Your task to perform on an android device: turn off smart reply in the gmail app Image 0: 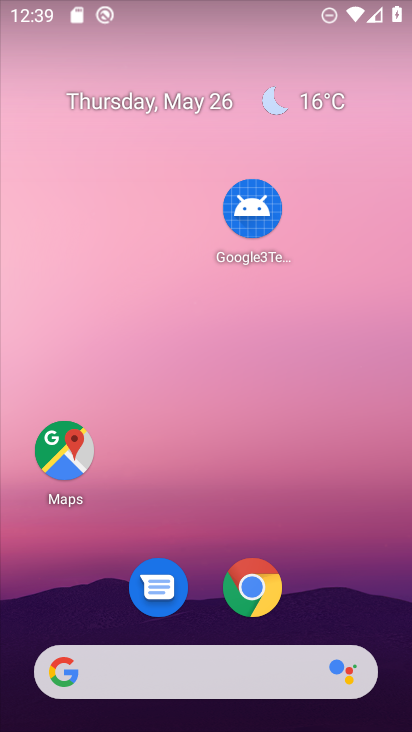
Step 0: drag from (245, 660) to (217, 205)
Your task to perform on an android device: turn off smart reply in the gmail app Image 1: 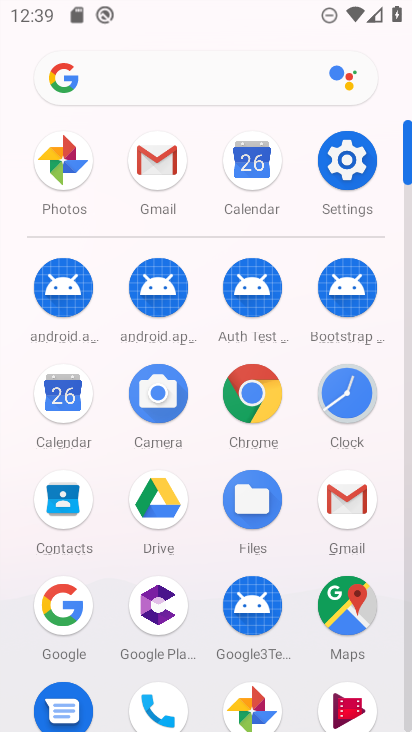
Step 1: click (354, 488)
Your task to perform on an android device: turn off smart reply in the gmail app Image 2: 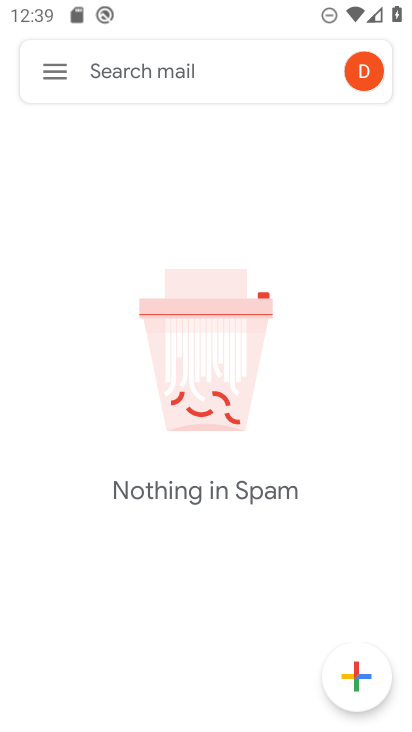
Step 2: click (55, 81)
Your task to perform on an android device: turn off smart reply in the gmail app Image 3: 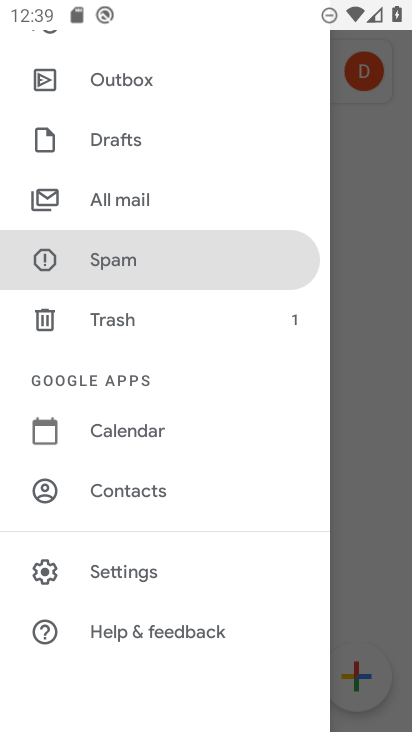
Step 3: click (125, 575)
Your task to perform on an android device: turn off smart reply in the gmail app Image 4: 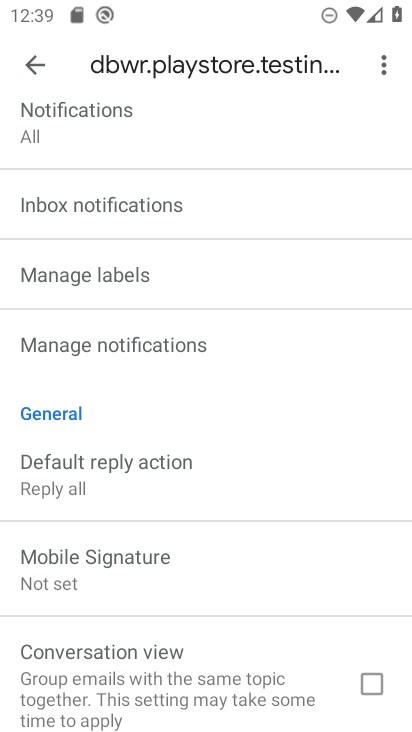
Step 4: drag from (198, 646) to (134, 66)
Your task to perform on an android device: turn off smart reply in the gmail app Image 5: 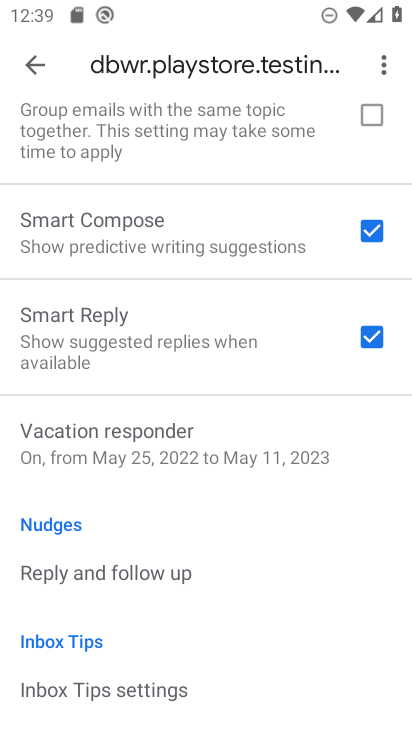
Step 5: click (354, 325)
Your task to perform on an android device: turn off smart reply in the gmail app Image 6: 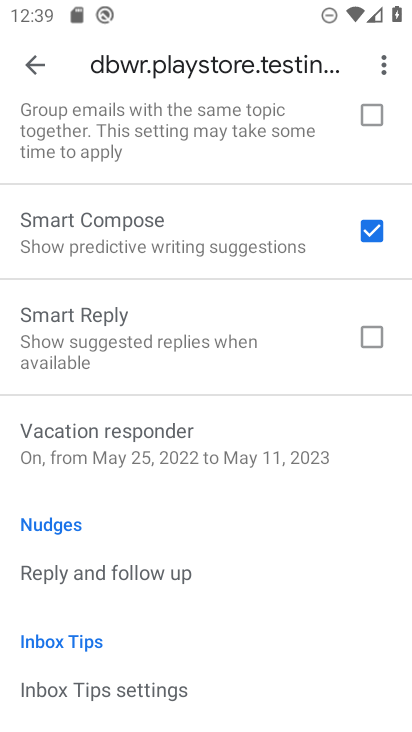
Step 6: task complete